Your task to perform on an android device: Open Chrome and go to settings Image 0: 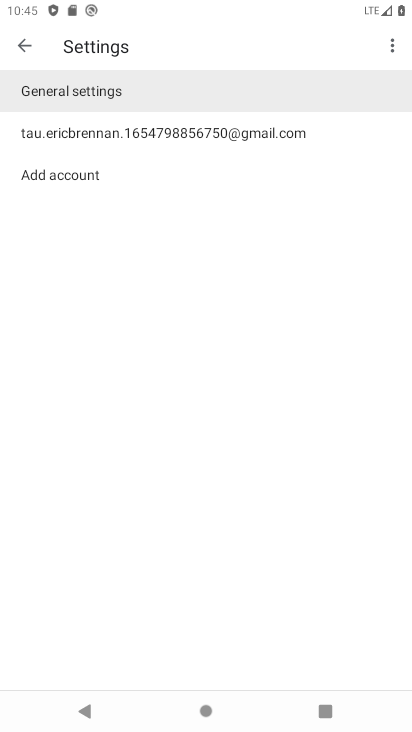
Step 0: press home button
Your task to perform on an android device: Open Chrome and go to settings Image 1: 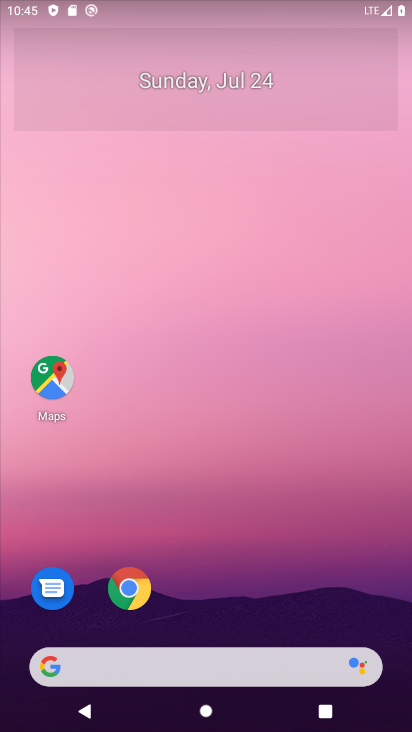
Step 1: click (120, 599)
Your task to perform on an android device: Open Chrome and go to settings Image 2: 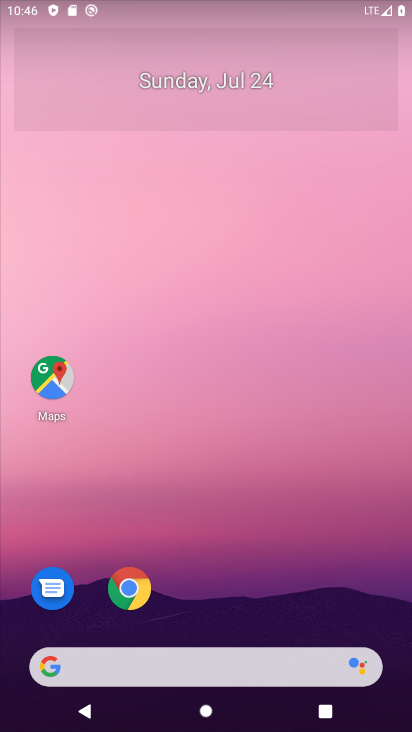
Step 2: click (120, 599)
Your task to perform on an android device: Open Chrome and go to settings Image 3: 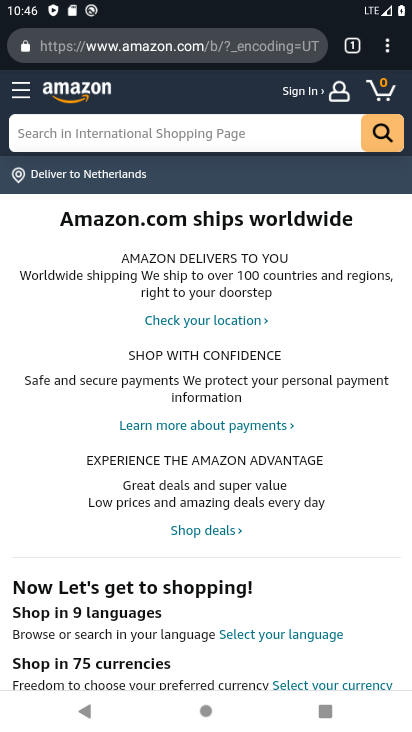
Step 3: click (391, 46)
Your task to perform on an android device: Open Chrome and go to settings Image 4: 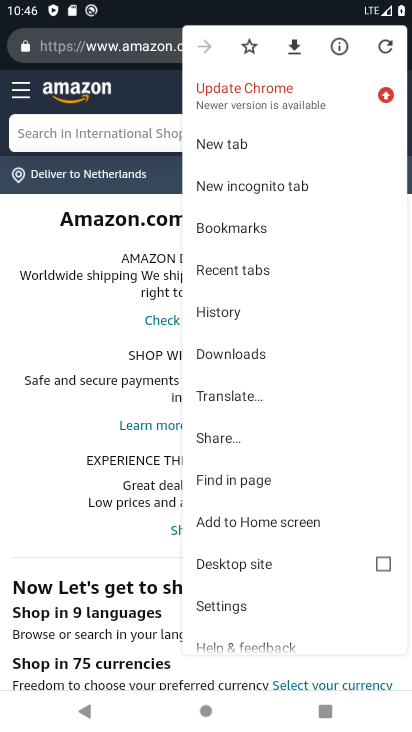
Step 4: click (252, 604)
Your task to perform on an android device: Open Chrome and go to settings Image 5: 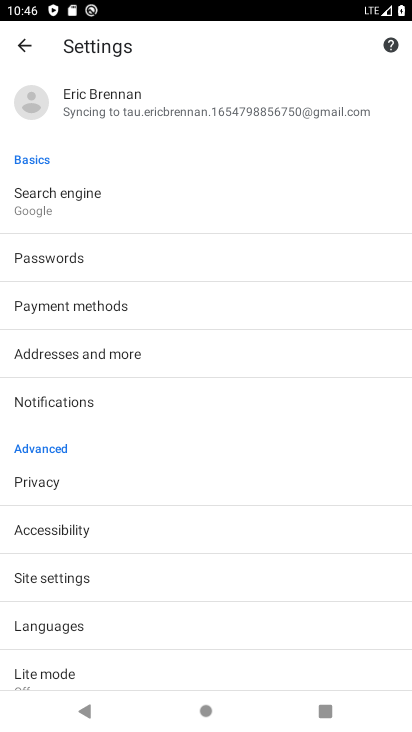
Step 5: task complete